Your task to perform on an android device: set the stopwatch Image 0: 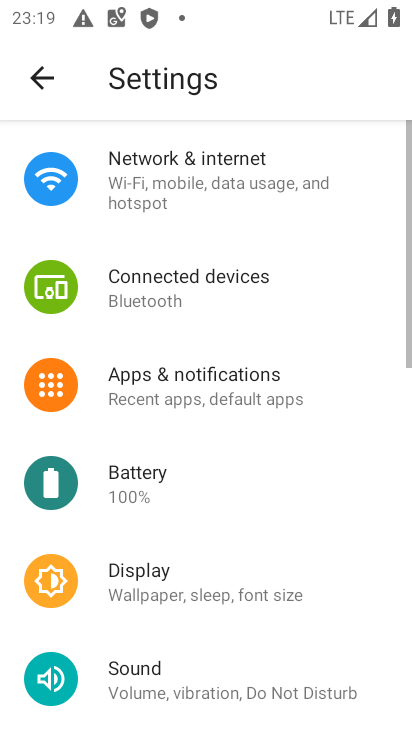
Step 0: drag from (246, 637) to (206, 41)
Your task to perform on an android device: set the stopwatch Image 1: 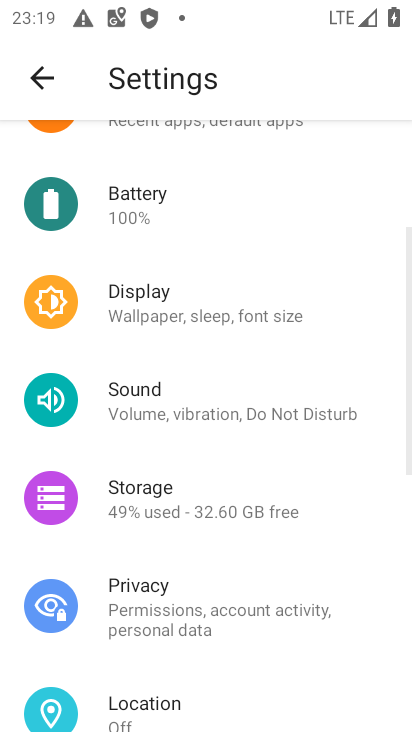
Step 1: click (42, 83)
Your task to perform on an android device: set the stopwatch Image 2: 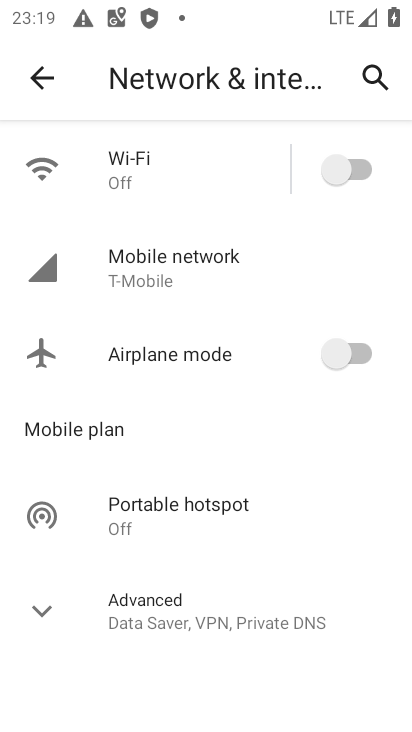
Step 2: press back button
Your task to perform on an android device: set the stopwatch Image 3: 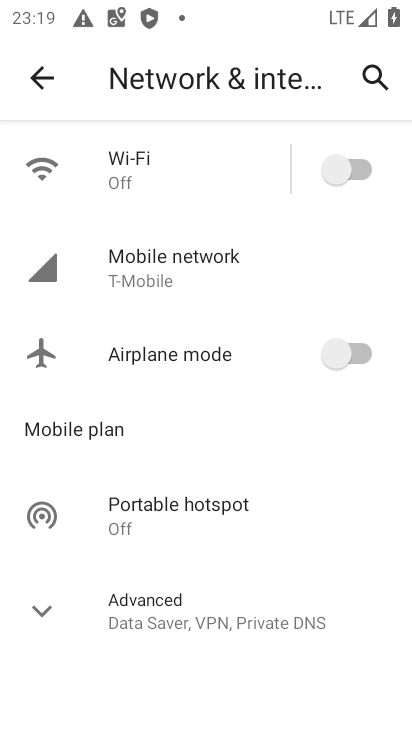
Step 3: press back button
Your task to perform on an android device: set the stopwatch Image 4: 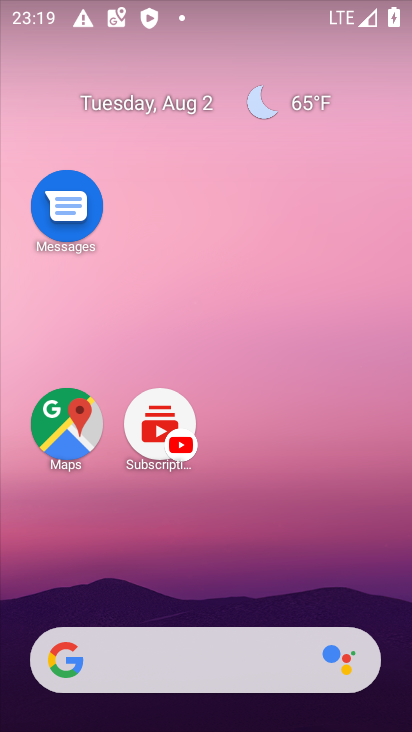
Step 4: drag from (203, 535) to (126, 198)
Your task to perform on an android device: set the stopwatch Image 5: 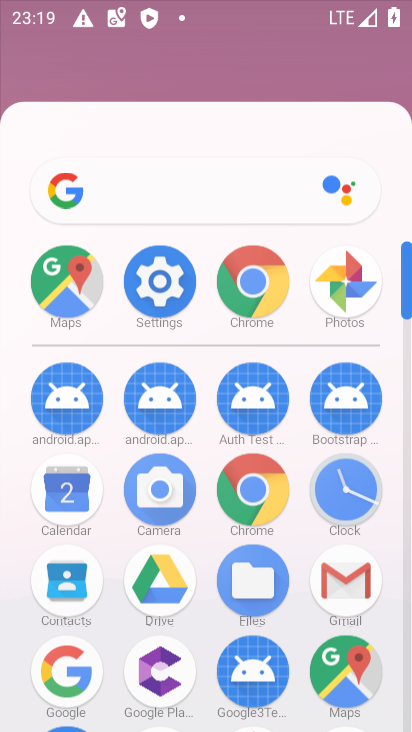
Step 5: drag from (272, 472) to (238, 187)
Your task to perform on an android device: set the stopwatch Image 6: 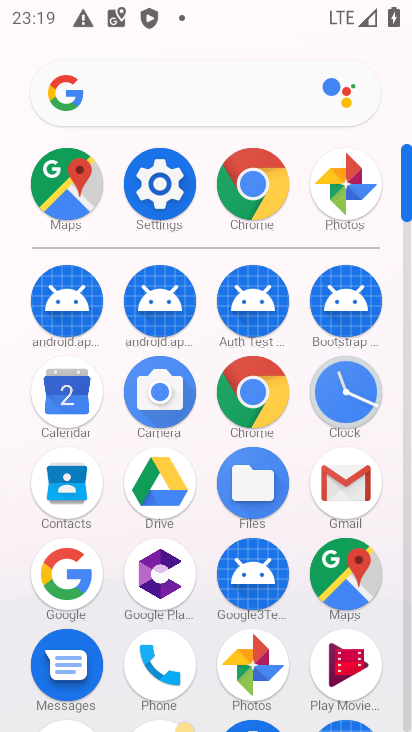
Step 6: click (331, 385)
Your task to perform on an android device: set the stopwatch Image 7: 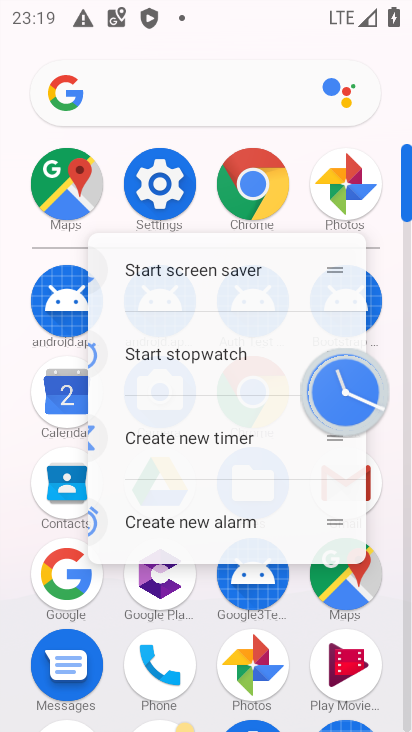
Step 7: click (331, 382)
Your task to perform on an android device: set the stopwatch Image 8: 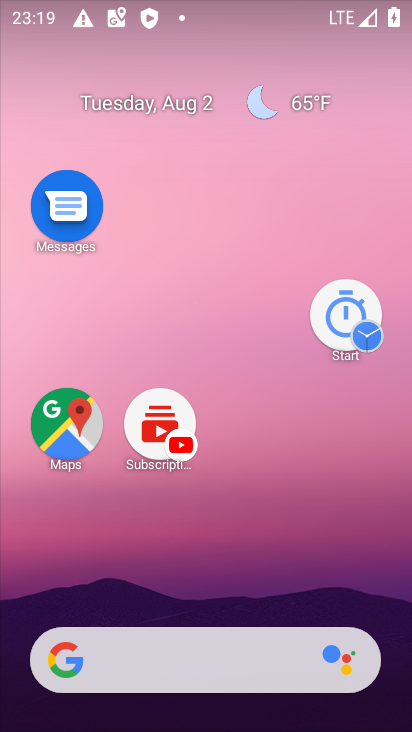
Step 8: click (243, 338)
Your task to perform on an android device: set the stopwatch Image 9: 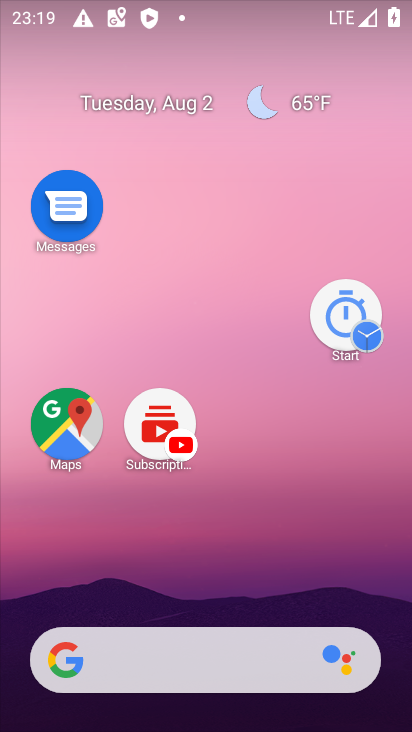
Step 9: drag from (310, 477) to (130, 5)
Your task to perform on an android device: set the stopwatch Image 10: 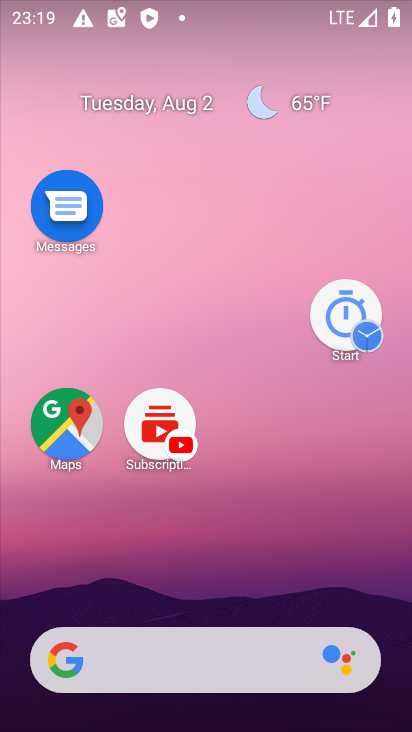
Step 10: drag from (143, 426) to (143, 56)
Your task to perform on an android device: set the stopwatch Image 11: 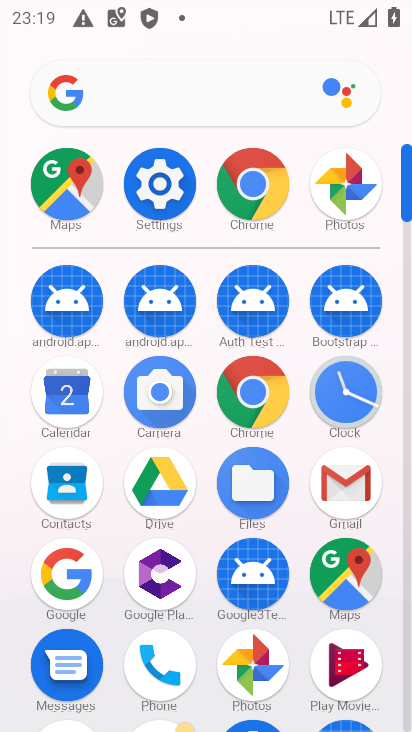
Step 11: drag from (177, 493) to (127, 127)
Your task to perform on an android device: set the stopwatch Image 12: 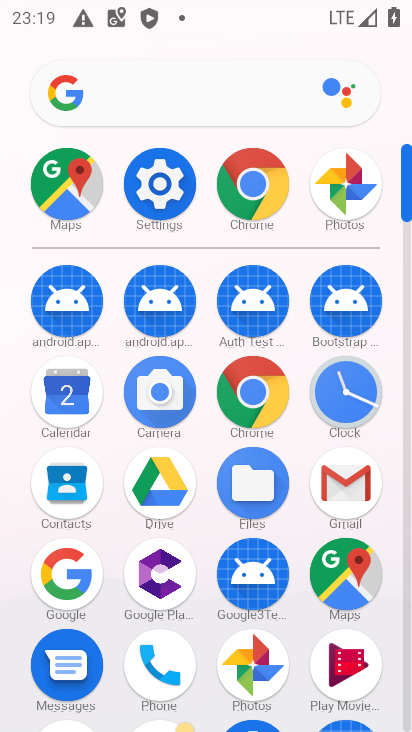
Step 12: drag from (231, 456) to (197, 316)
Your task to perform on an android device: set the stopwatch Image 13: 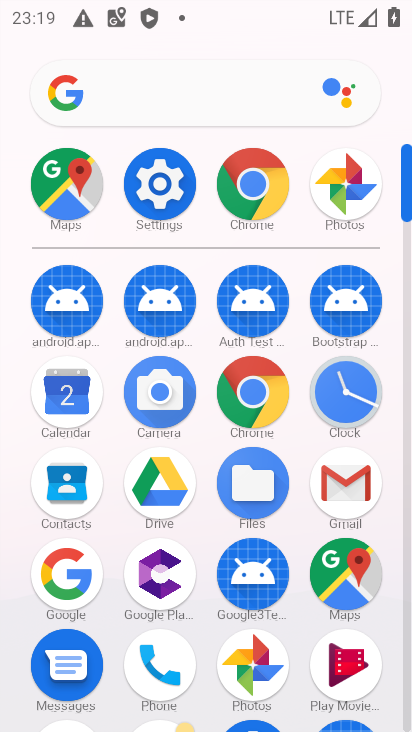
Step 13: click (359, 387)
Your task to perform on an android device: set the stopwatch Image 14: 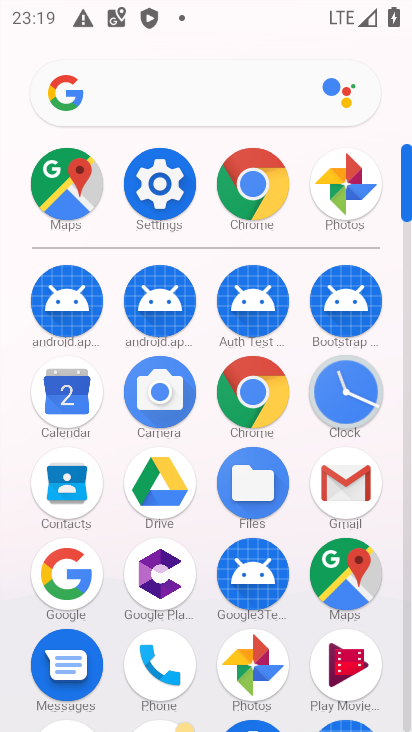
Step 14: click (358, 388)
Your task to perform on an android device: set the stopwatch Image 15: 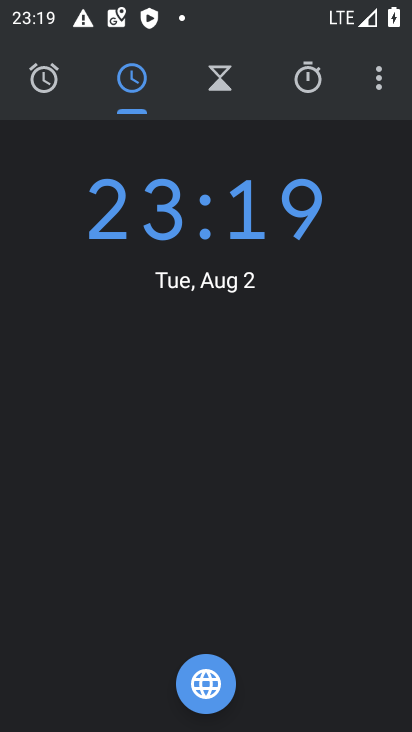
Step 15: click (319, 84)
Your task to perform on an android device: set the stopwatch Image 16: 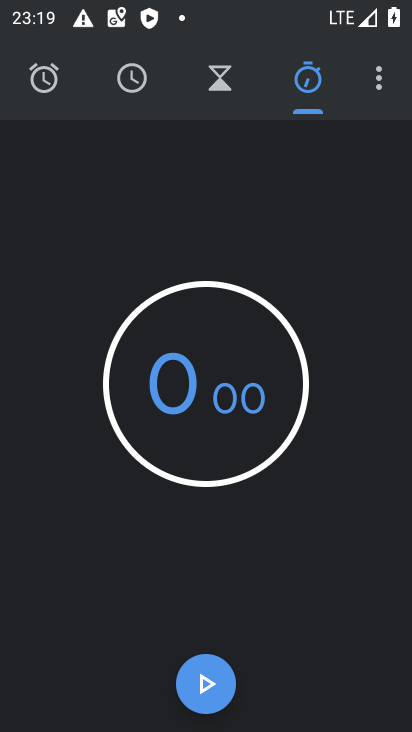
Step 16: click (304, 80)
Your task to perform on an android device: set the stopwatch Image 17: 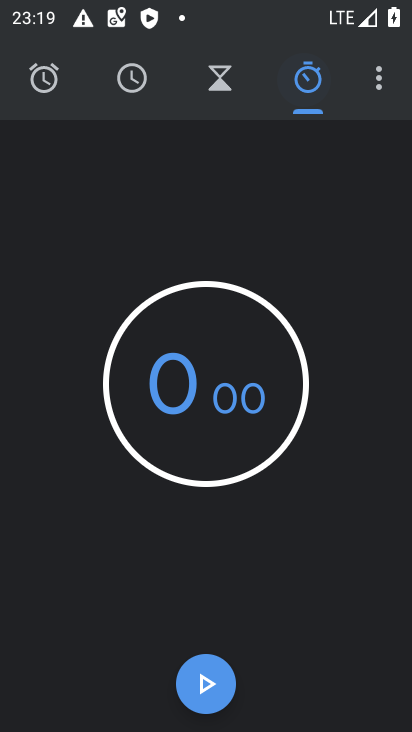
Step 17: click (304, 80)
Your task to perform on an android device: set the stopwatch Image 18: 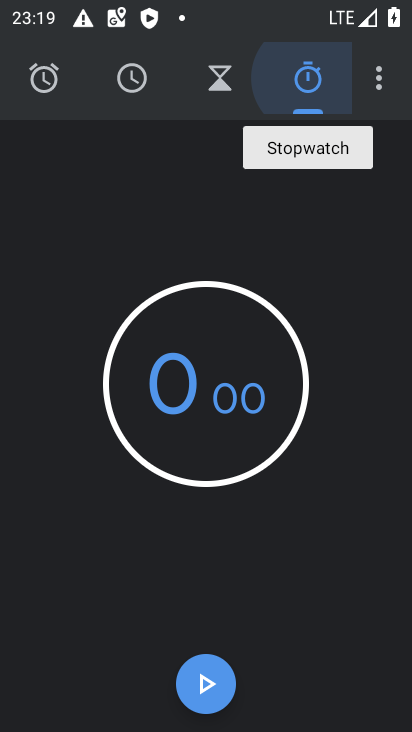
Step 18: click (303, 76)
Your task to perform on an android device: set the stopwatch Image 19: 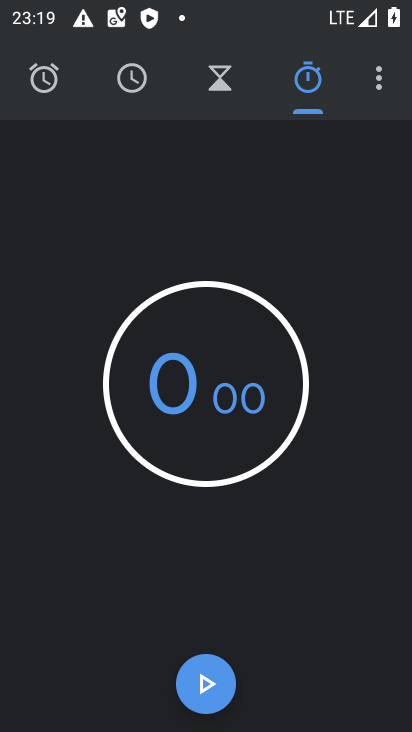
Step 19: click (198, 681)
Your task to perform on an android device: set the stopwatch Image 20: 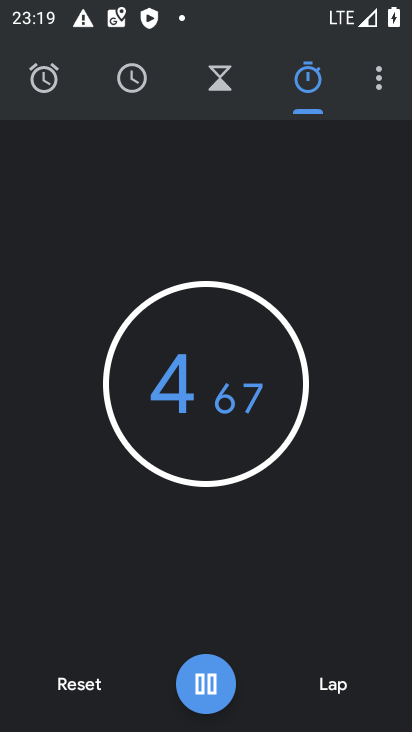
Step 20: click (206, 694)
Your task to perform on an android device: set the stopwatch Image 21: 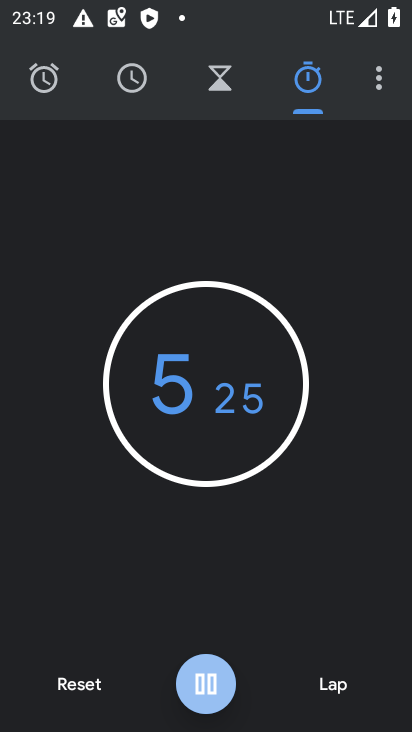
Step 21: click (205, 688)
Your task to perform on an android device: set the stopwatch Image 22: 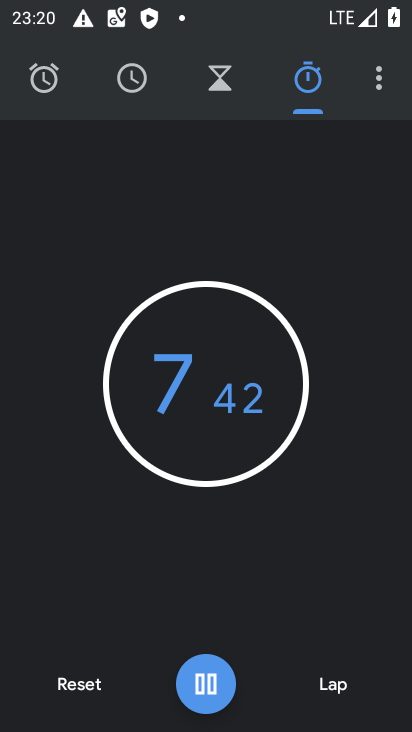
Step 22: click (209, 686)
Your task to perform on an android device: set the stopwatch Image 23: 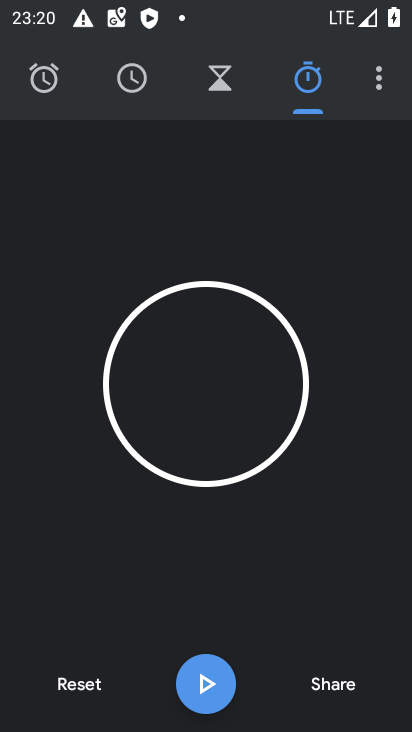
Step 23: task complete